Your task to perform on an android device: open app "Skype" (install if not already installed) Image 0: 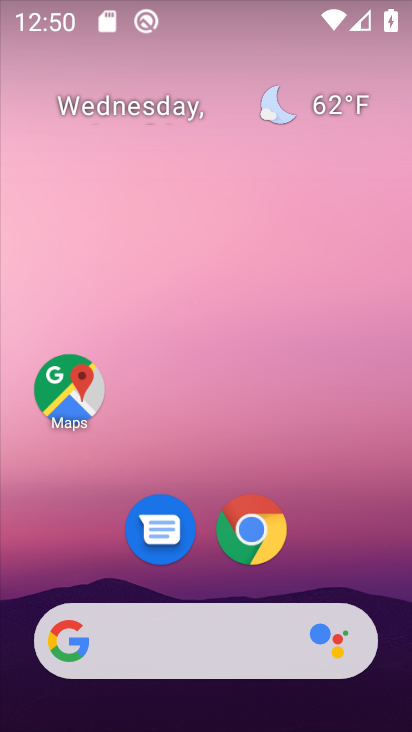
Step 0: drag from (195, 574) to (204, 217)
Your task to perform on an android device: open app "Skype" (install if not already installed) Image 1: 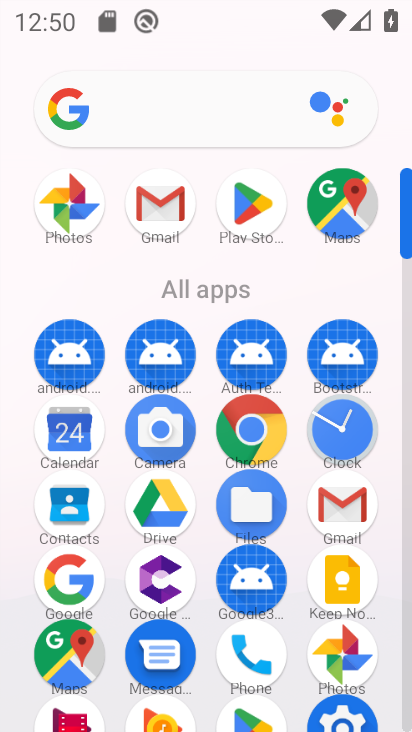
Step 1: click (246, 202)
Your task to perform on an android device: open app "Skype" (install if not already installed) Image 2: 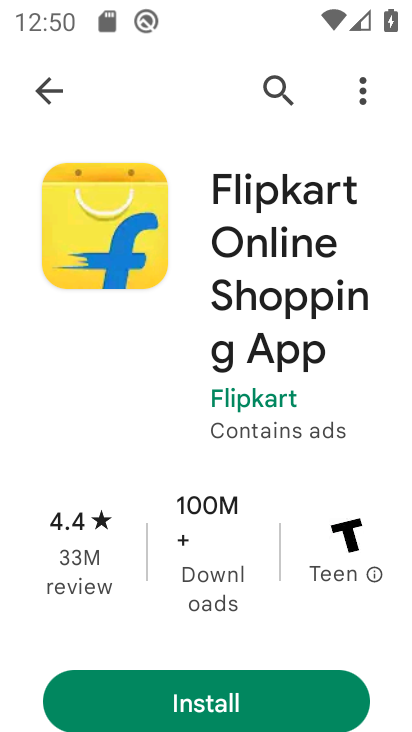
Step 2: click (35, 80)
Your task to perform on an android device: open app "Skype" (install if not already installed) Image 3: 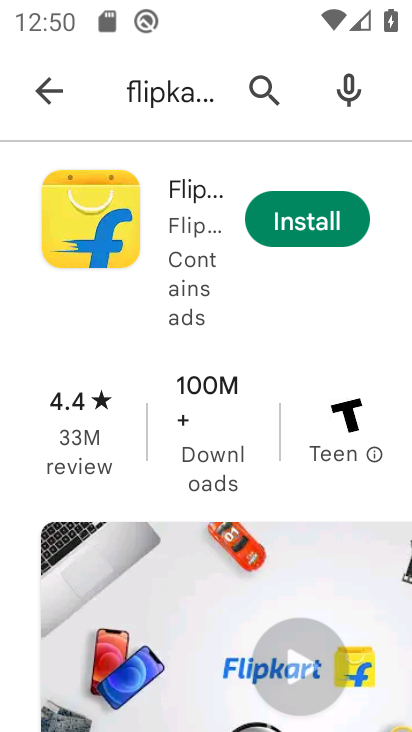
Step 3: click (35, 80)
Your task to perform on an android device: open app "Skype" (install if not already installed) Image 4: 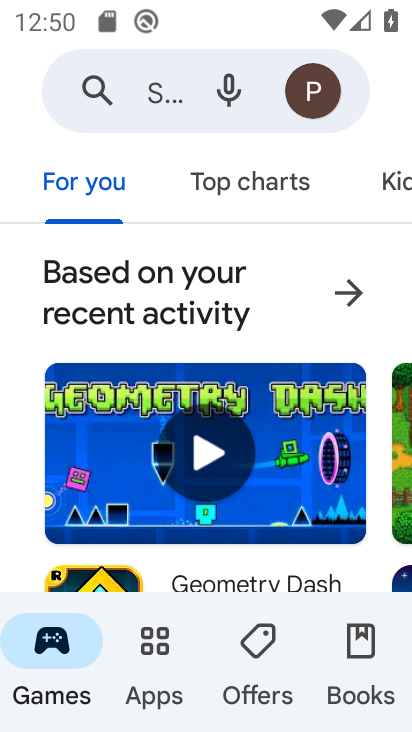
Step 4: click (150, 78)
Your task to perform on an android device: open app "Skype" (install if not already installed) Image 5: 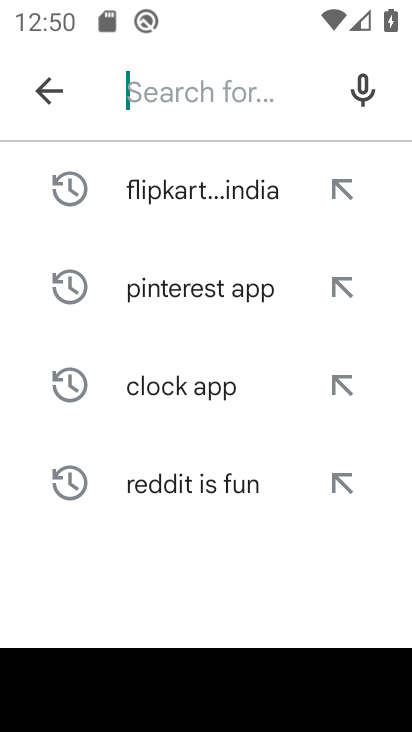
Step 5: type "Skype "
Your task to perform on an android device: open app "Skype" (install if not already installed) Image 6: 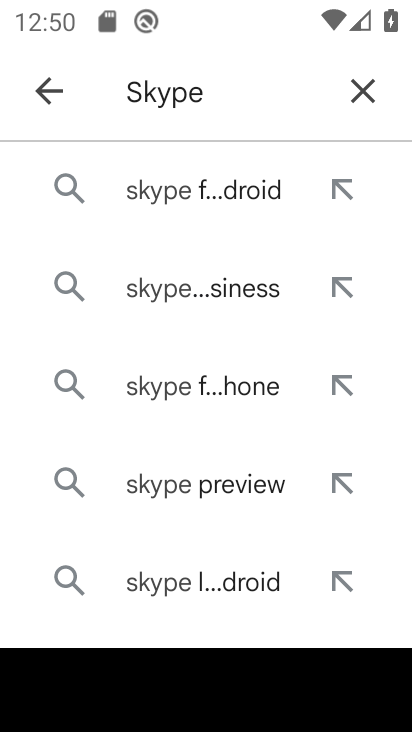
Step 6: click (137, 196)
Your task to perform on an android device: open app "Skype" (install if not already installed) Image 7: 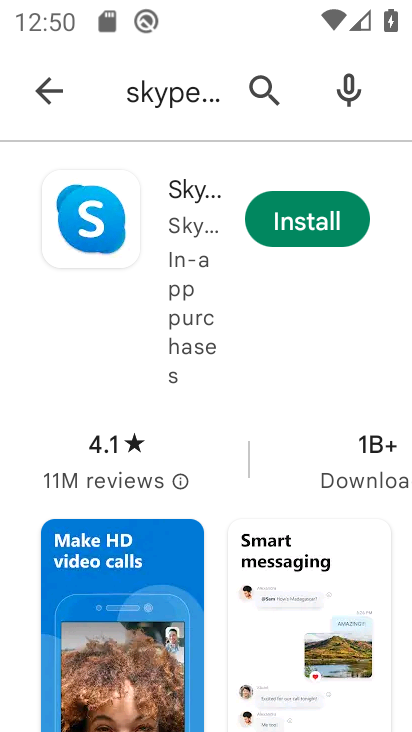
Step 7: click (324, 226)
Your task to perform on an android device: open app "Skype" (install if not already installed) Image 8: 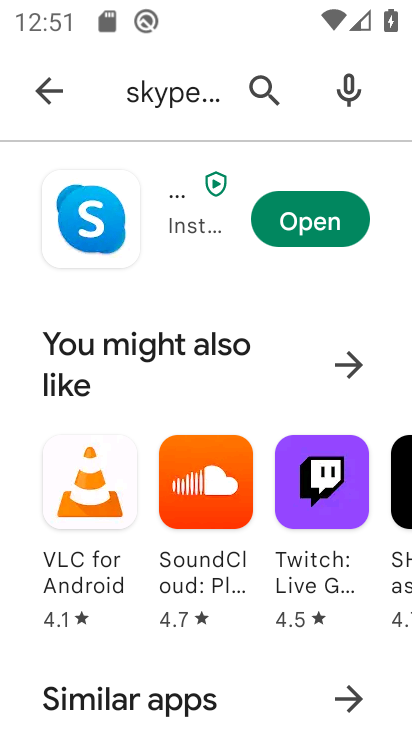
Step 8: task complete